Your task to perform on an android device: Go to Reddit.com Image 0: 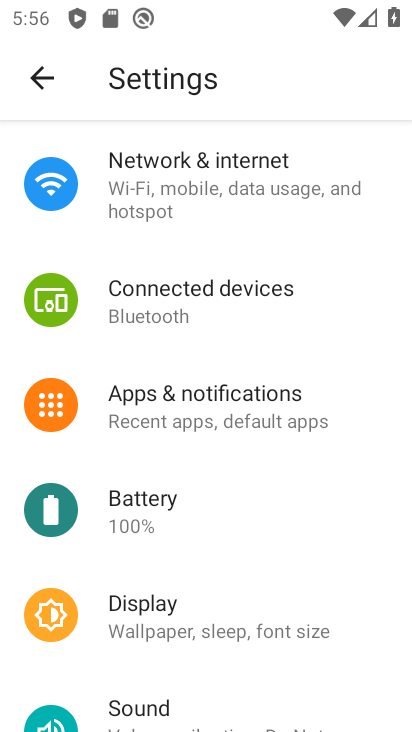
Step 0: press home button
Your task to perform on an android device: Go to Reddit.com Image 1: 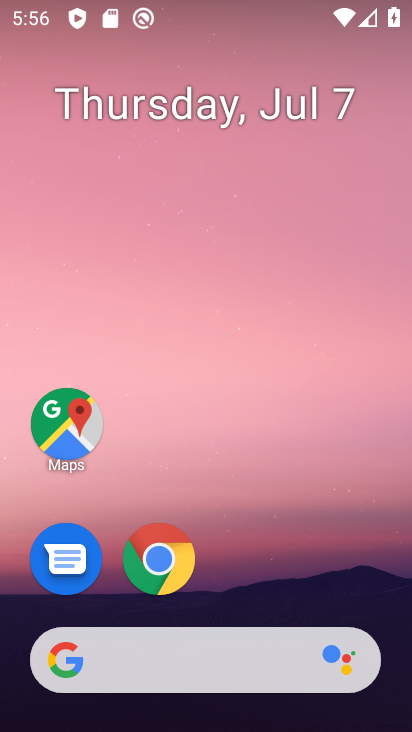
Step 1: drag from (249, 652) to (202, 55)
Your task to perform on an android device: Go to Reddit.com Image 2: 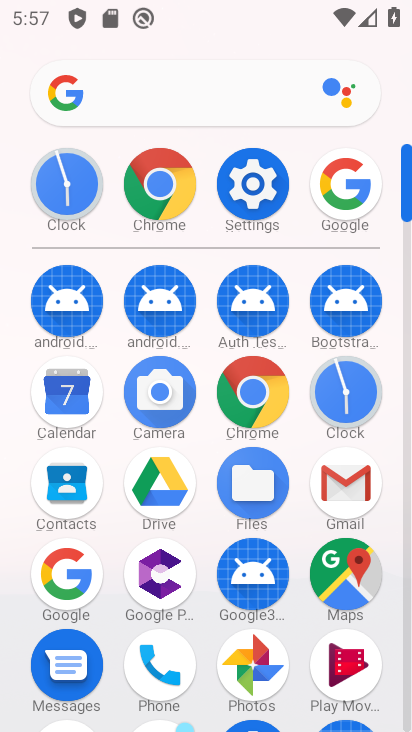
Step 2: click (160, 216)
Your task to perform on an android device: Go to Reddit.com Image 3: 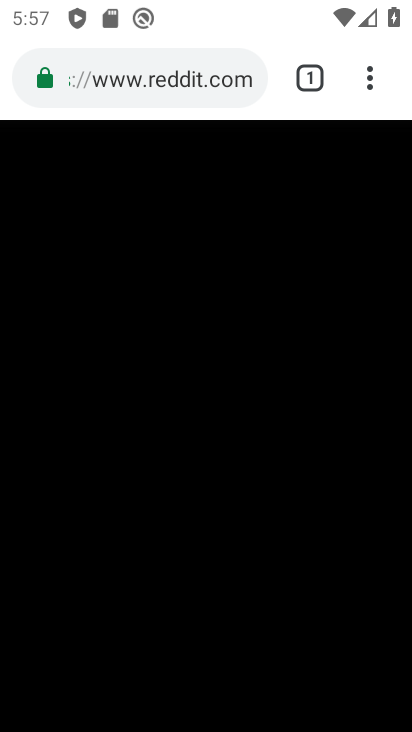
Step 3: task complete